Your task to perform on an android device: Show the shopping cart on costco. Image 0: 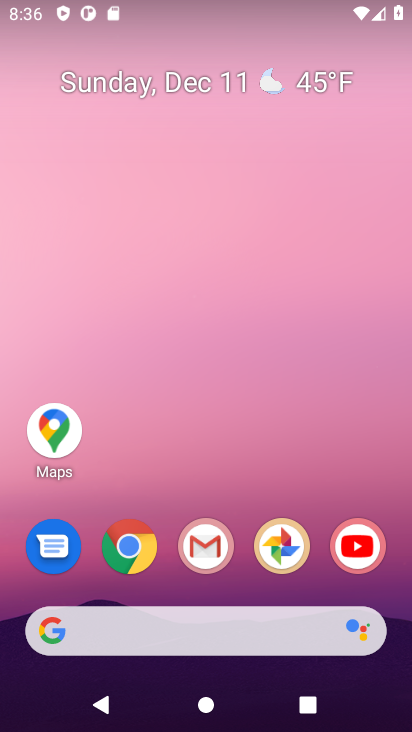
Step 0: click (136, 541)
Your task to perform on an android device: Show the shopping cart on costco. Image 1: 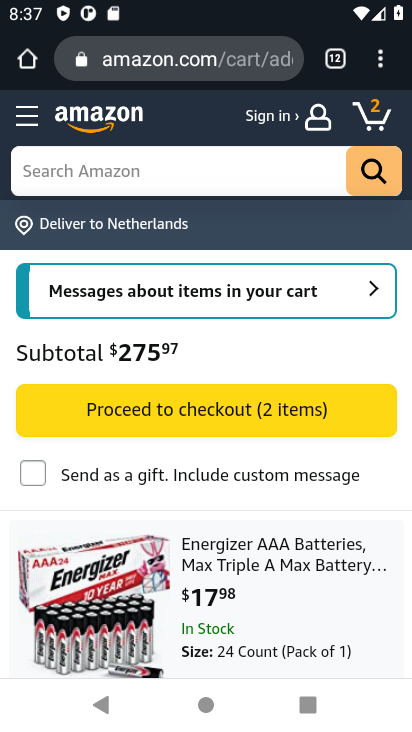
Step 1: click (134, 70)
Your task to perform on an android device: Show the shopping cart on costco. Image 2: 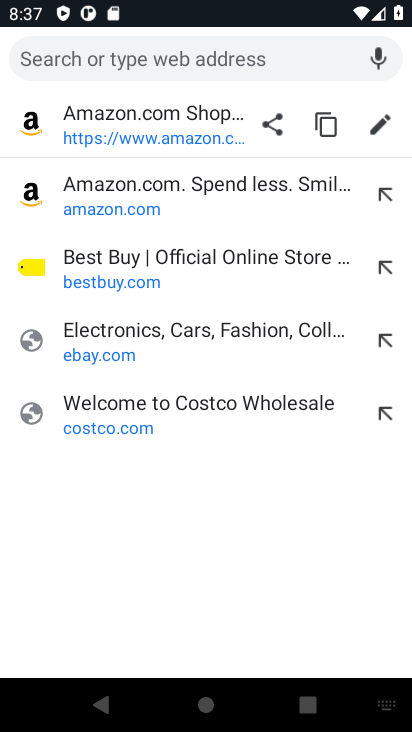
Step 2: click (92, 418)
Your task to perform on an android device: Show the shopping cart on costco. Image 3: 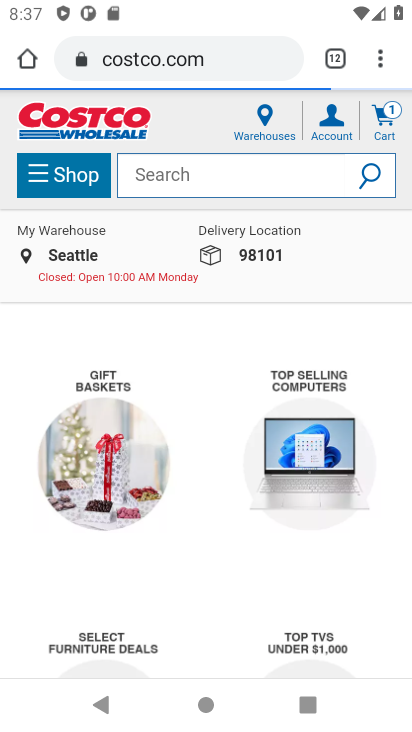
Step 3: click (378, 123)
Your task to perform on an android device: Show the shopping cart on costco. Image 4: 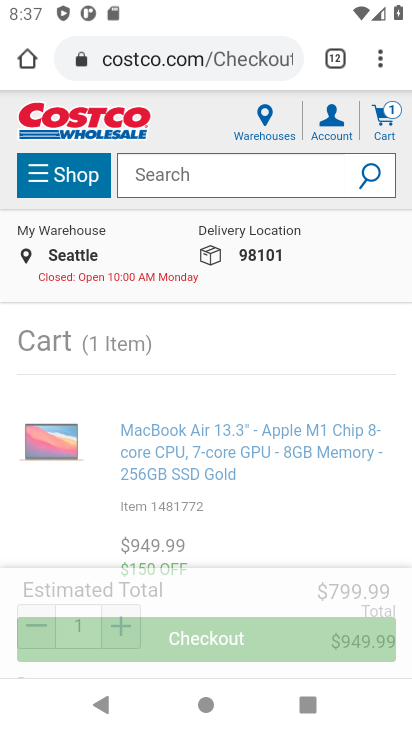
Step 4: task complete